Your task to perform on an android device: Open display settings Image 0: 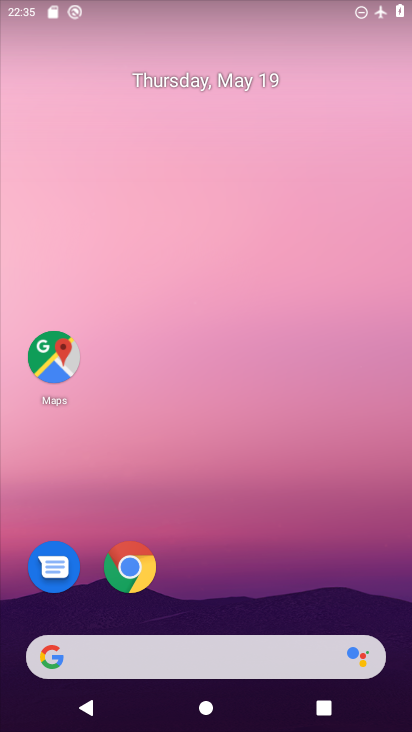
Step 0: drag from (214, 385) to (222, 59)
Your task to perform on an android device: Open display settings Image 1: 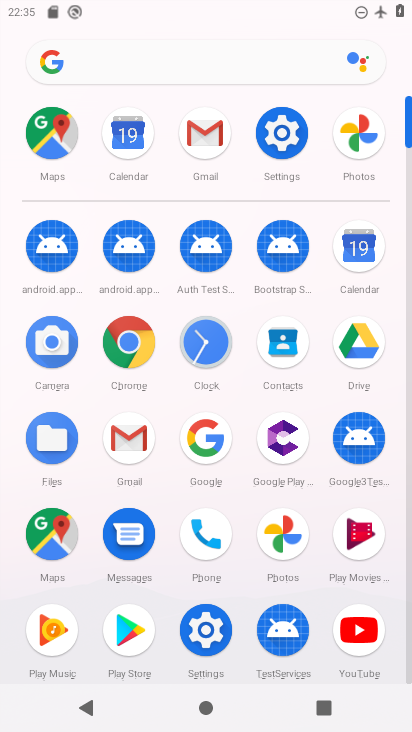
Step 1: click (282, 133)
Your task to perform on an android device: Open display settings Image 2: 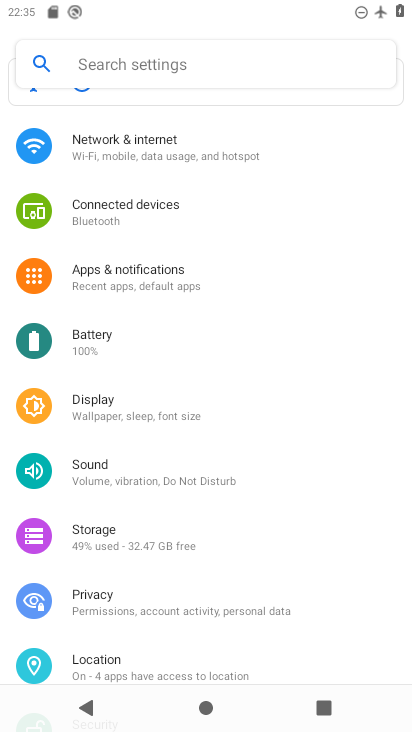
Step 2: click (126, 396)
Your task to perform on an android device: Open display settings Image 3: 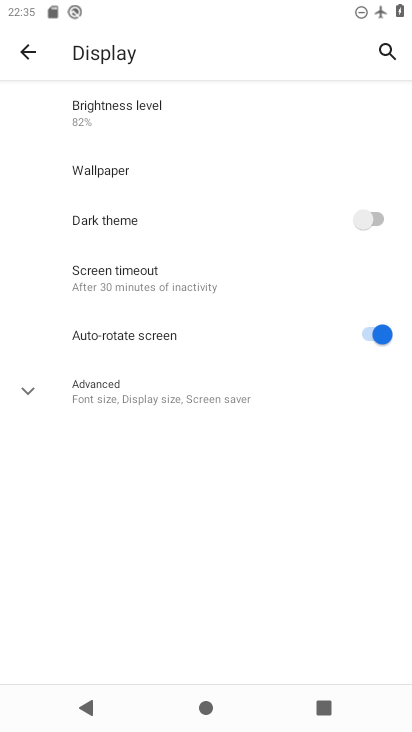
Step 3: click (29, 388)
Your task to perform on an android device: Open display settings Image 4: 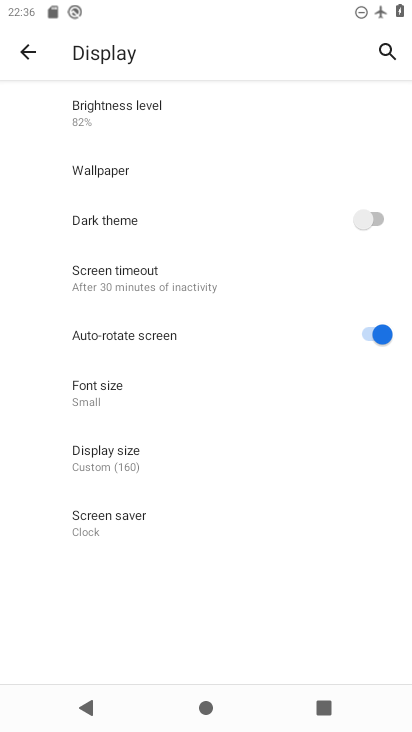
Step 4: task complete